Your task to perform on an android device: delete the emails in spam in the gmail app Image 0: 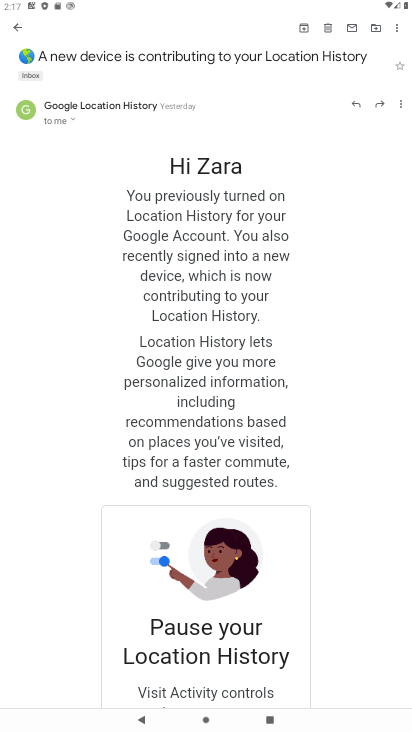
Step 0: press home button
Your task to perform on an android device: delete the emails in spam in the gmail app Image 1: 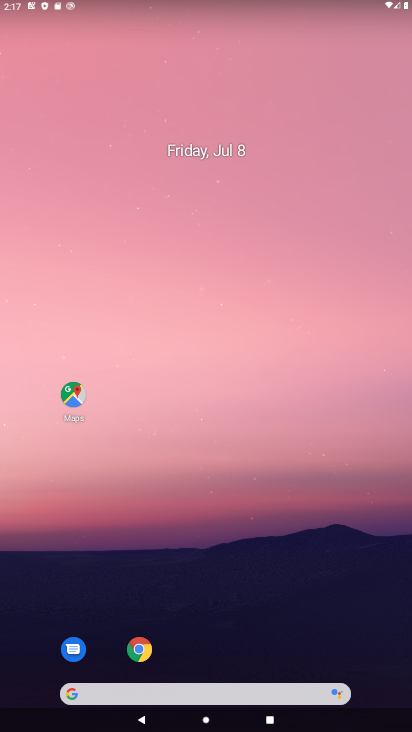
Step 1: drag from (375, 658) to (311, 127)
Your task to perform on an android device: delete the emails in spam in the gmail app Image 2: 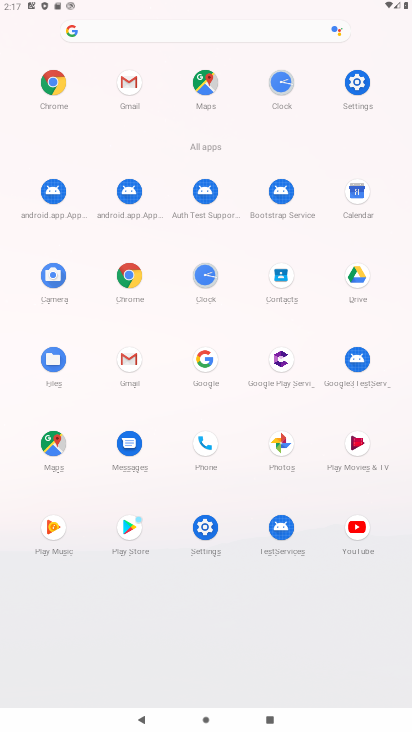
Step 2: click (126, 359)
Your task to perform on an android device: delete the emails in spam in the gmail app Image 3: 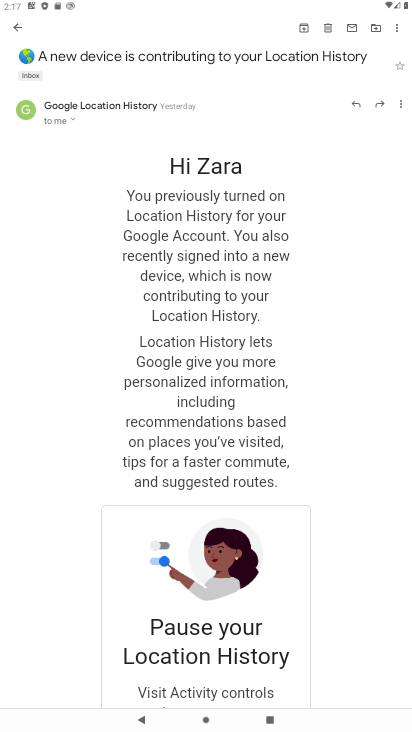
Step 3: press back button
Your task to perform on an android device: delete the emails in spam in the gmail app Image 4: 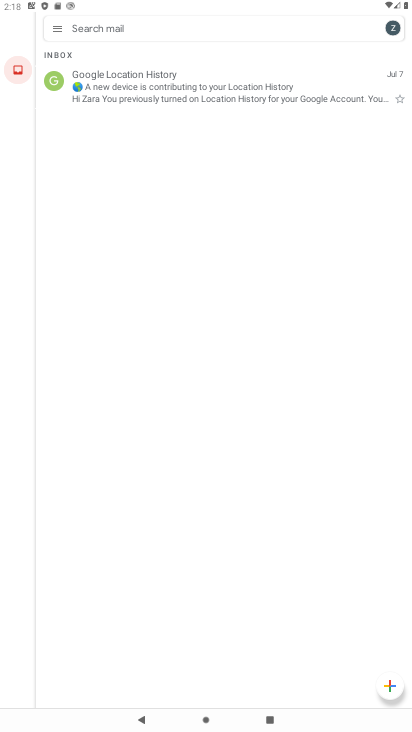
Step 4: click (57, 31)
Your task to perform on an android device: delete the emails in spam in the gmail app Image 5: 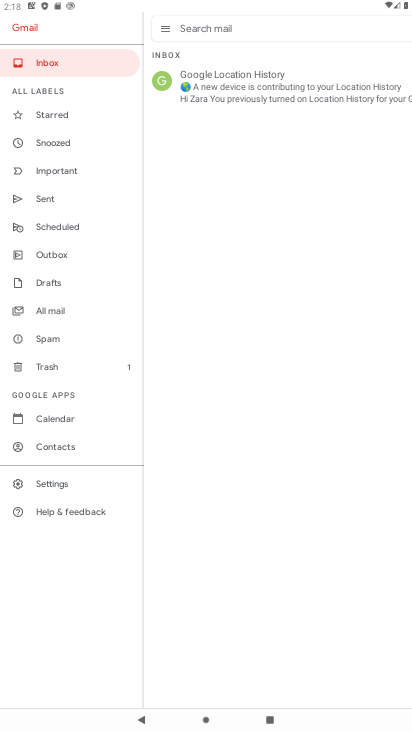
Step 5: click (46, 339)
Your task to perform on an android device: delete the emails in spam in the gmail app Image 6: 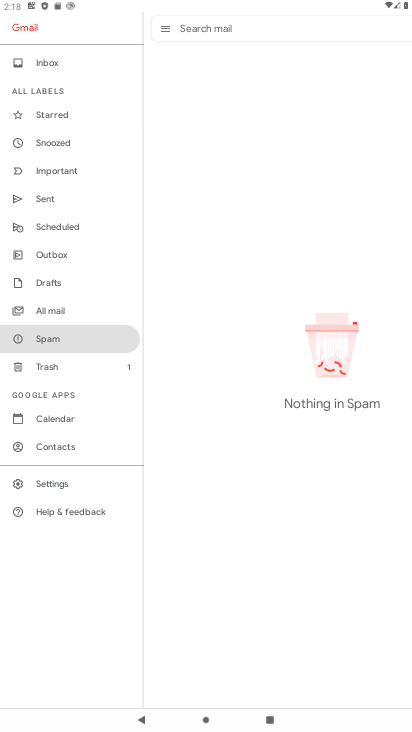
Step 6: task complete